Your task to perform on an android device: Search for "bose soundlink" on walmart, select the first entry, and add it to the cart. Image 0: 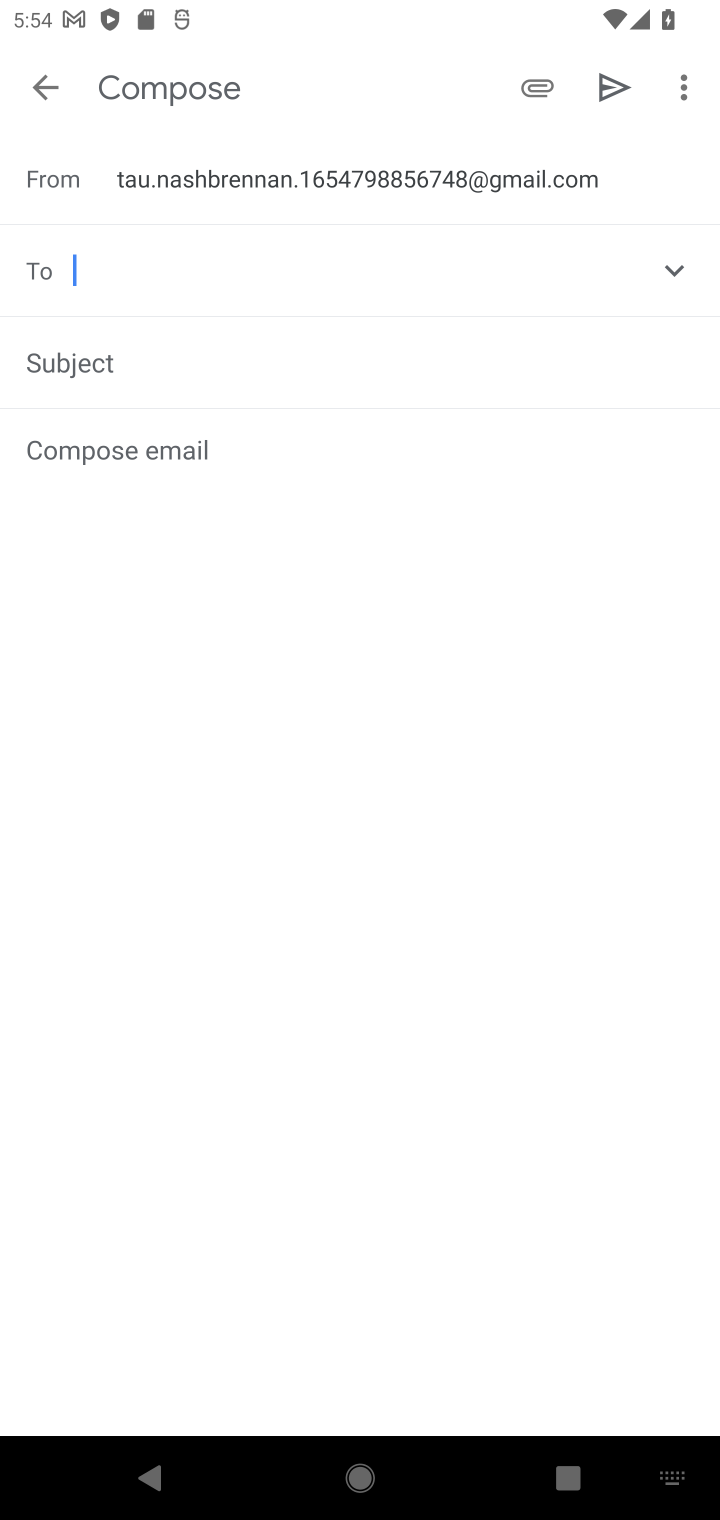
Step 0: press home button
Your task to perform on an android device: Search for "bose soundlink" on walmart, select the first entry, and add it to the cart. Image 1: 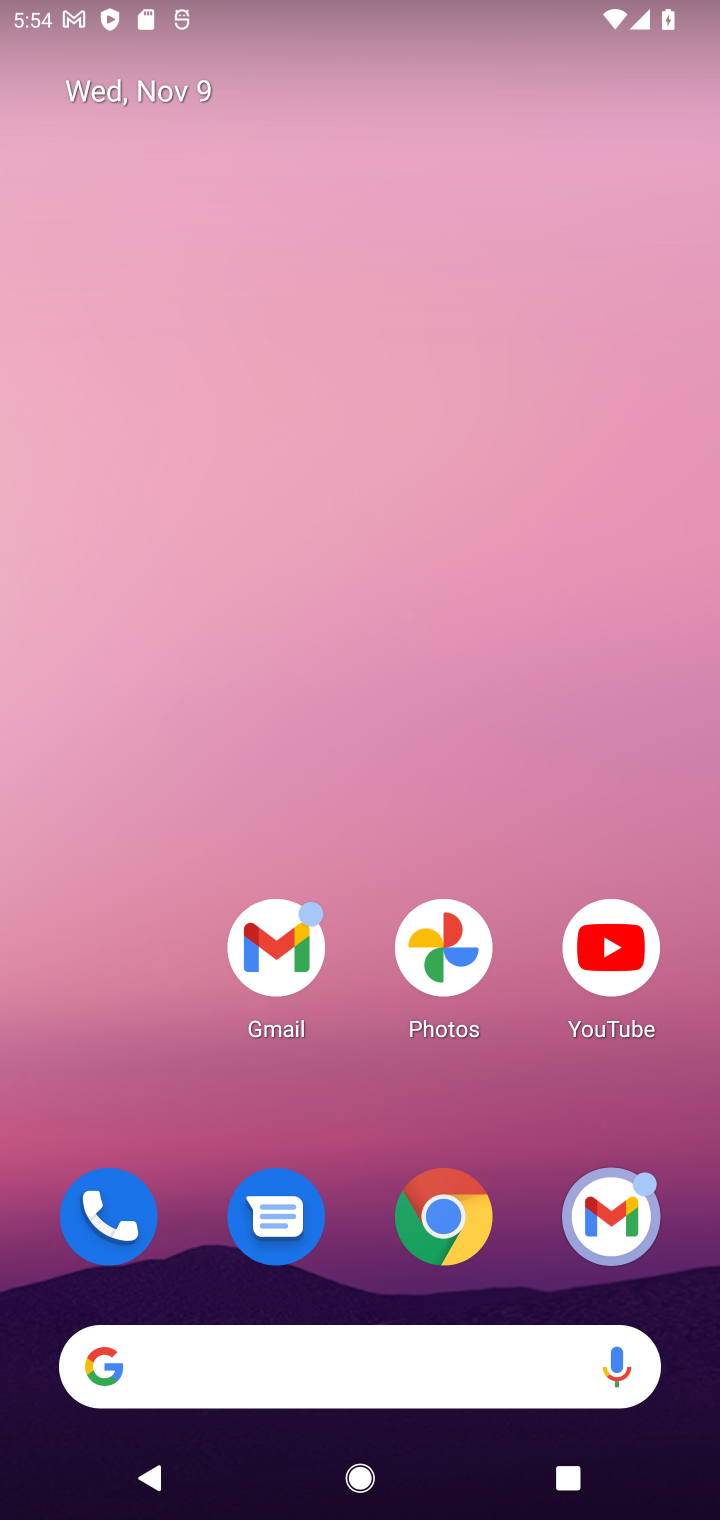
Step 1: drag from (358, 1273) to (285, 464)
Your task to perform on an android device: Search for "bose soundlink" on walmart, select the first entry, and add it to the cart. Image 2: 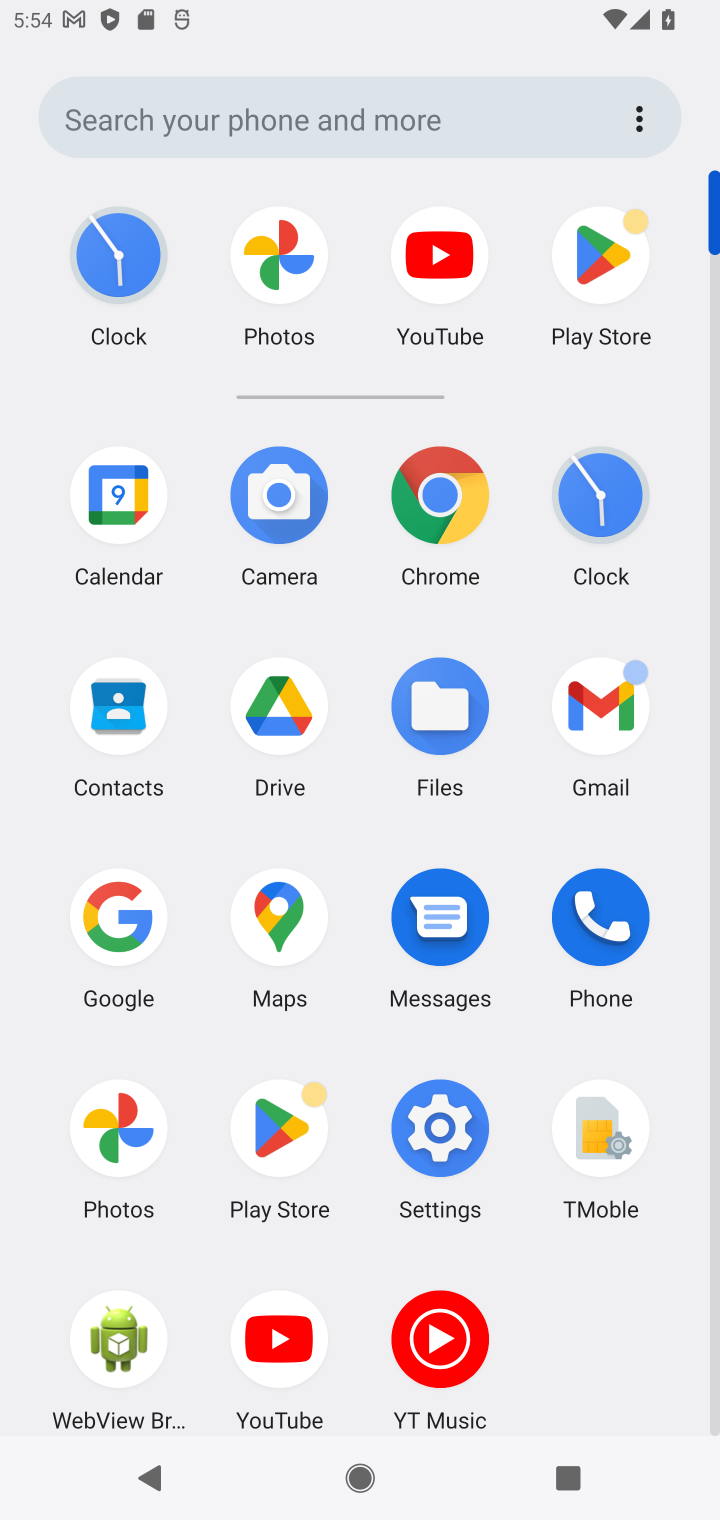
Step 2: click (442, 492)
Your task to perform on an android device: Search for "bose soundlink" on walmart, select the first entry, and add it to the cart. Image 3: 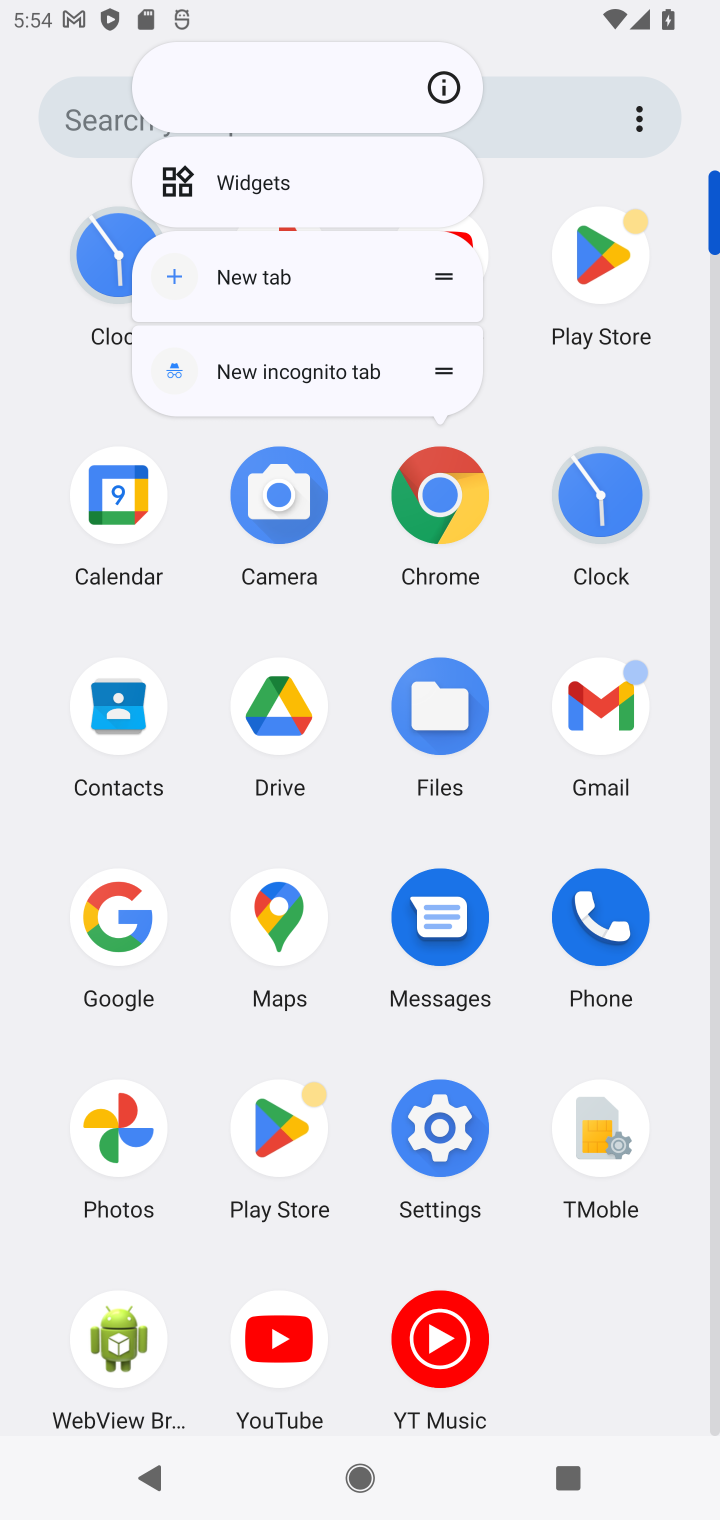
Step 3: click (442, 492)
Your task to perform on an android device: Search for "bose soundlink" on walmart, select the first entry, and add it to the cart. Image 4: 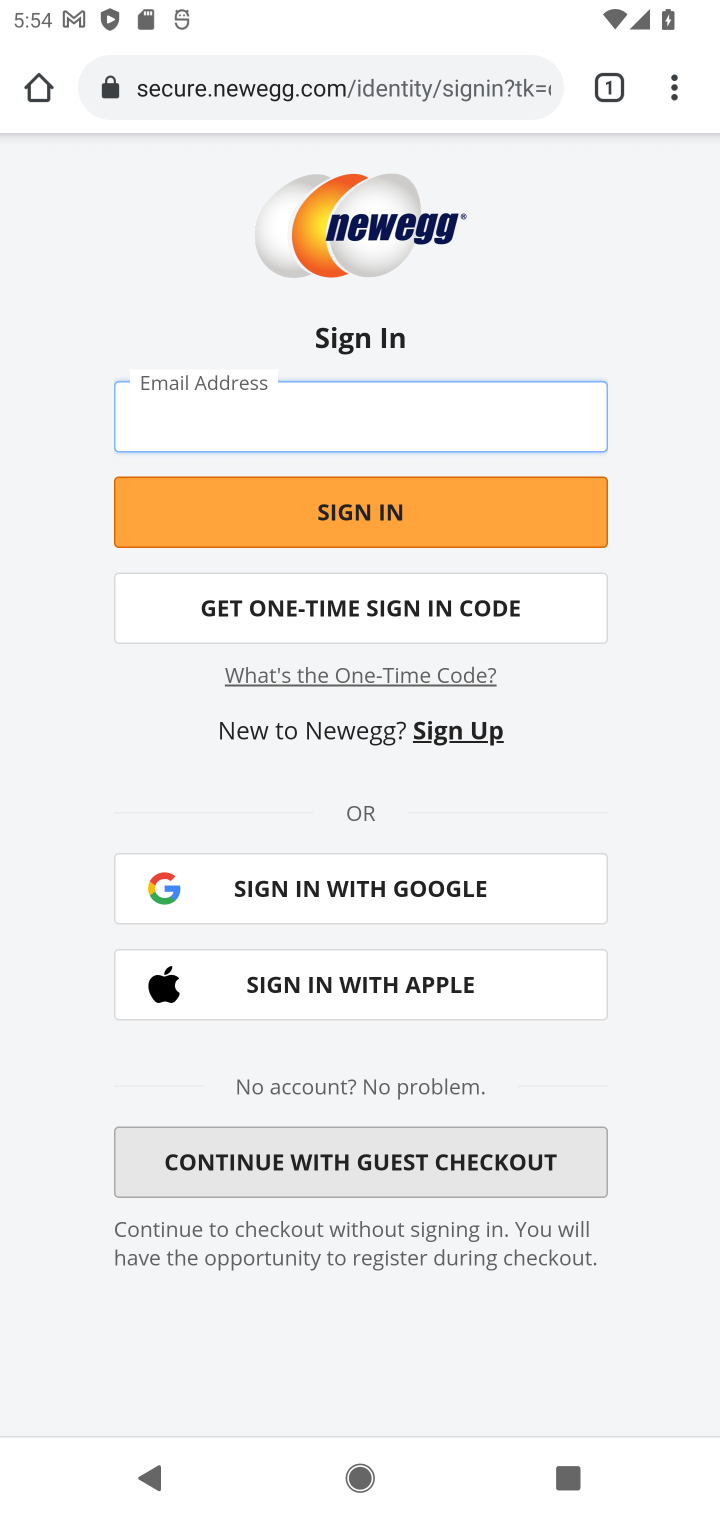
Step 4: click (374, 86)
Your task to perform on an android device: Search for "bose soundlink" on walmart, select the first entry, and add it to the cart. Image 5: 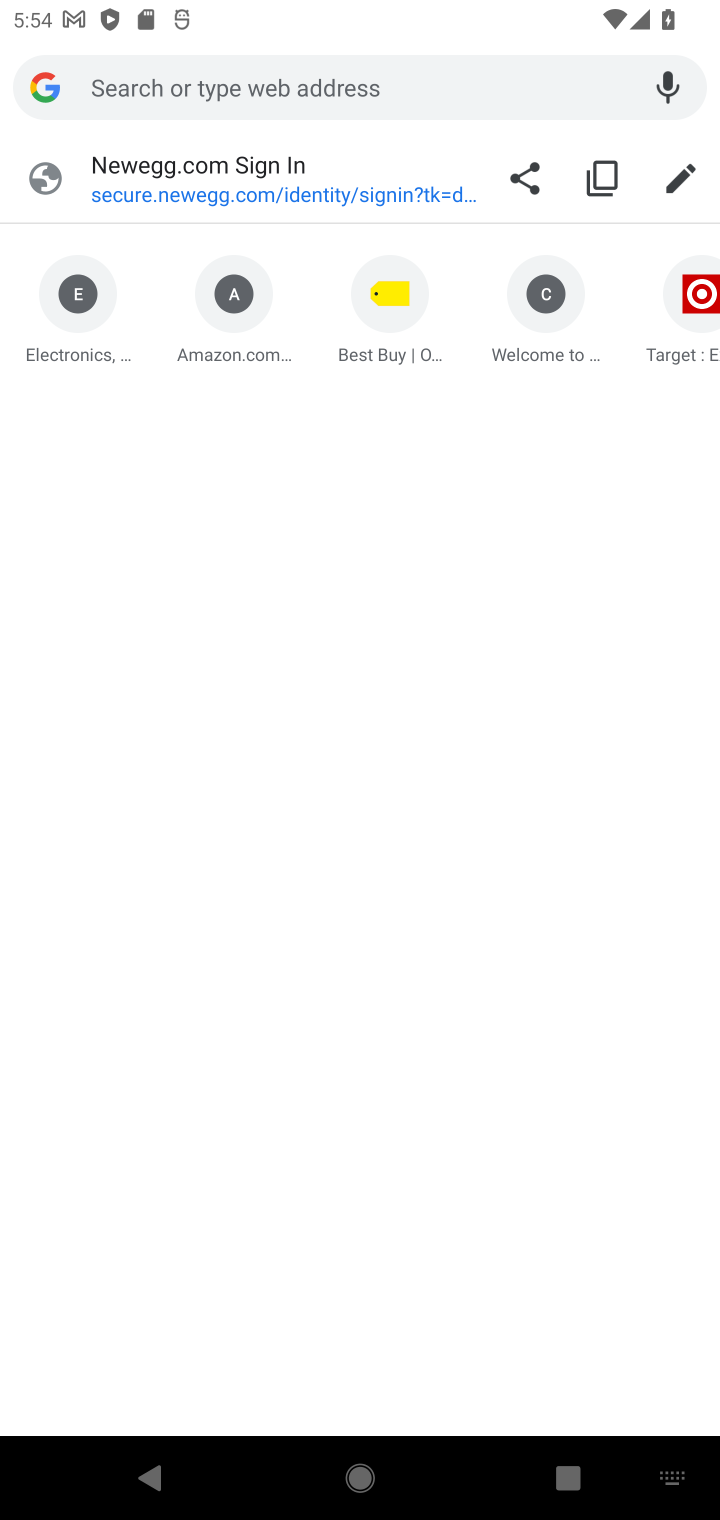
Step 5: type "walmart.com"
Your task to perform on an android device: Search for "bose soundlink" on walmart, select the first entry, and add it to the cart. Image 6: 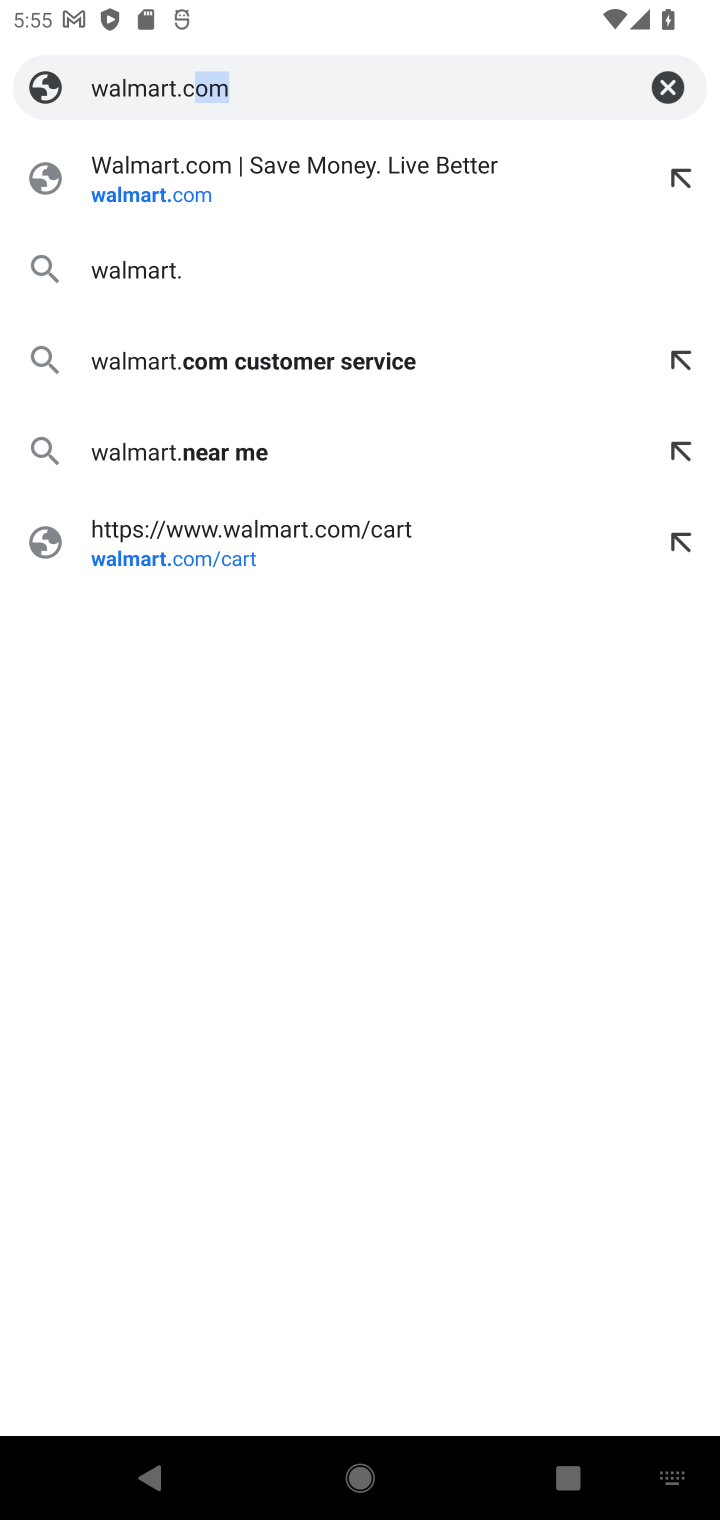
Step 6: press enter
Your task to perform on an android device: Search for "bose soundlink" on walmart, select the first entry, and add it to the cart. Image 7: 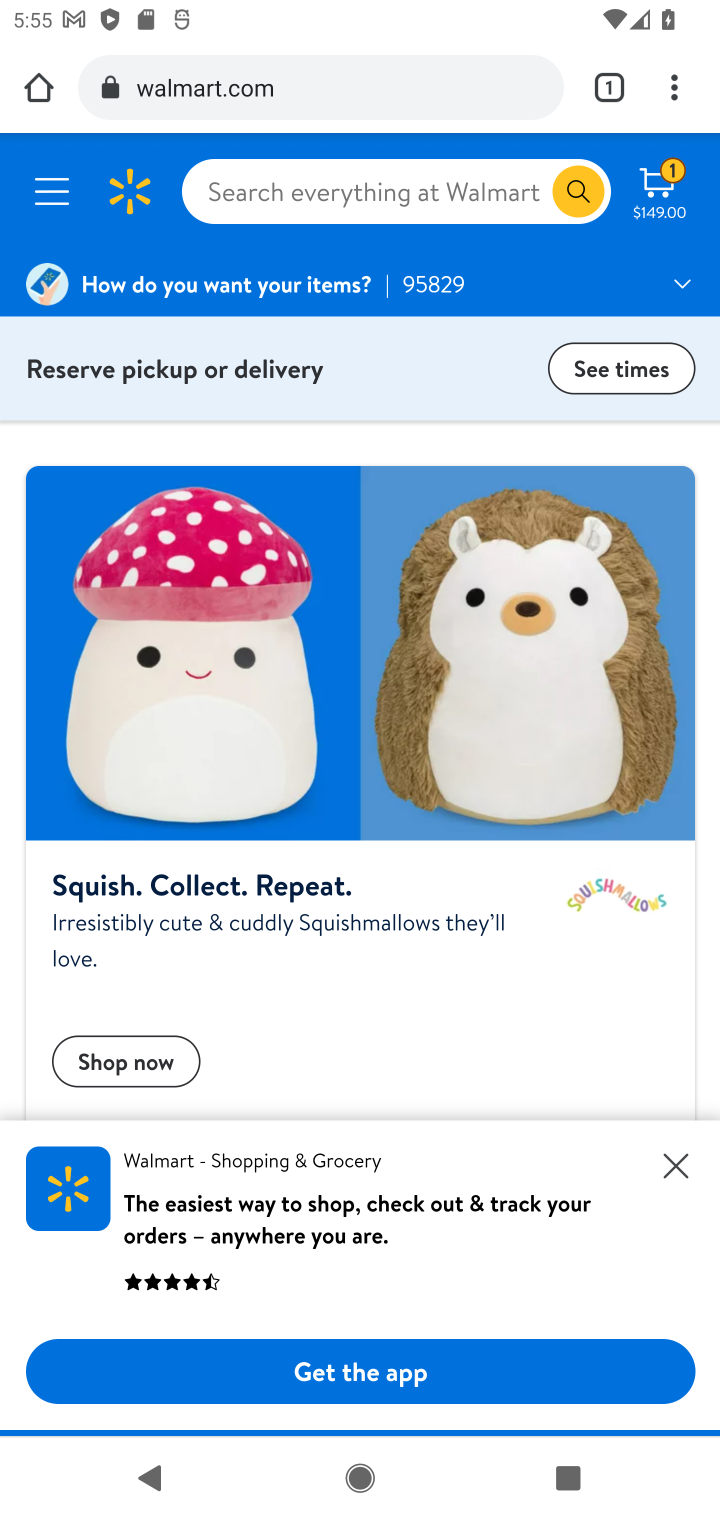
Step 7: click (455, 203)
Your task to perform on an android device: Search for "bose soundlink" on walmart, select the first entry, and add it to the cart. Image 8: 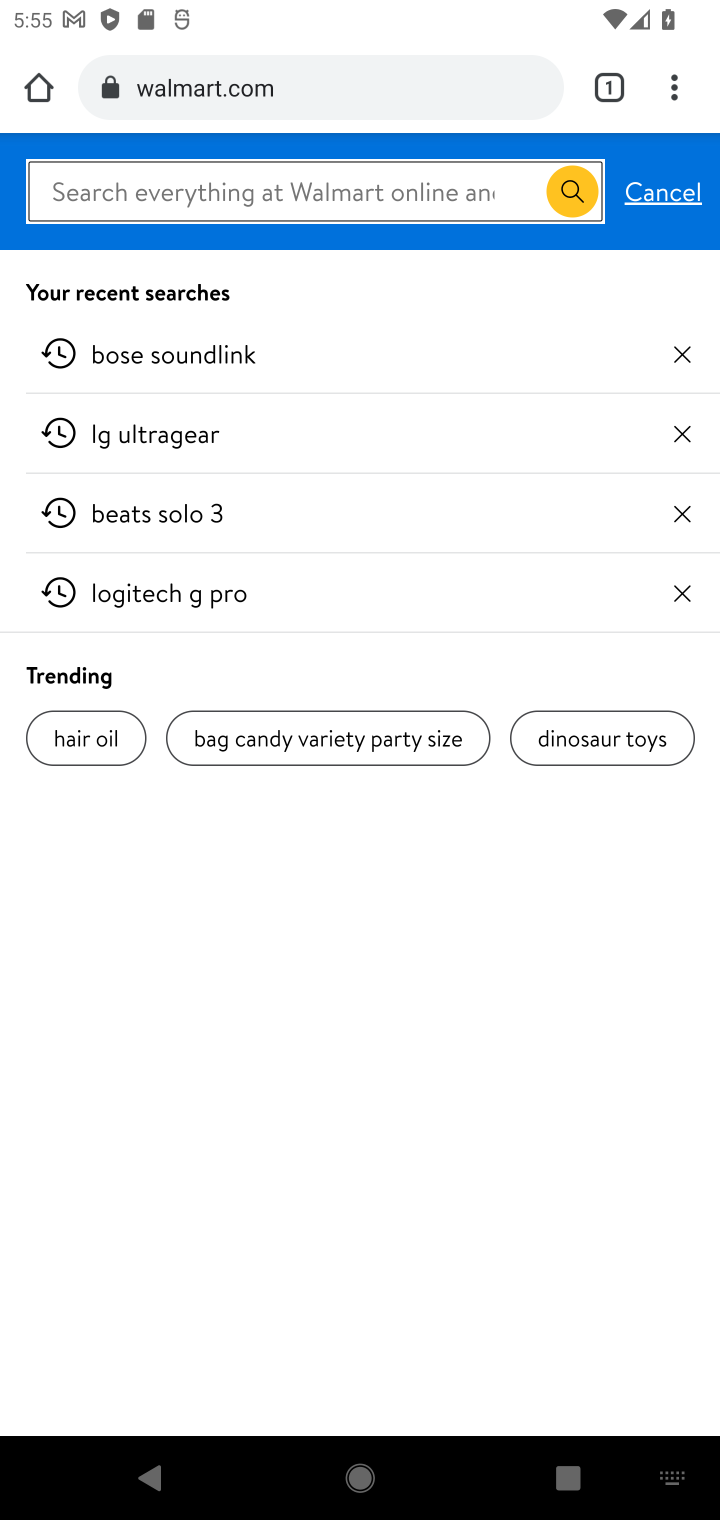
Step 8: type "bose soundlink"
Your task to perform on an android device: Search for "bose soundlink" on walmart, select the first entry, and add it to the cart. Image 9: 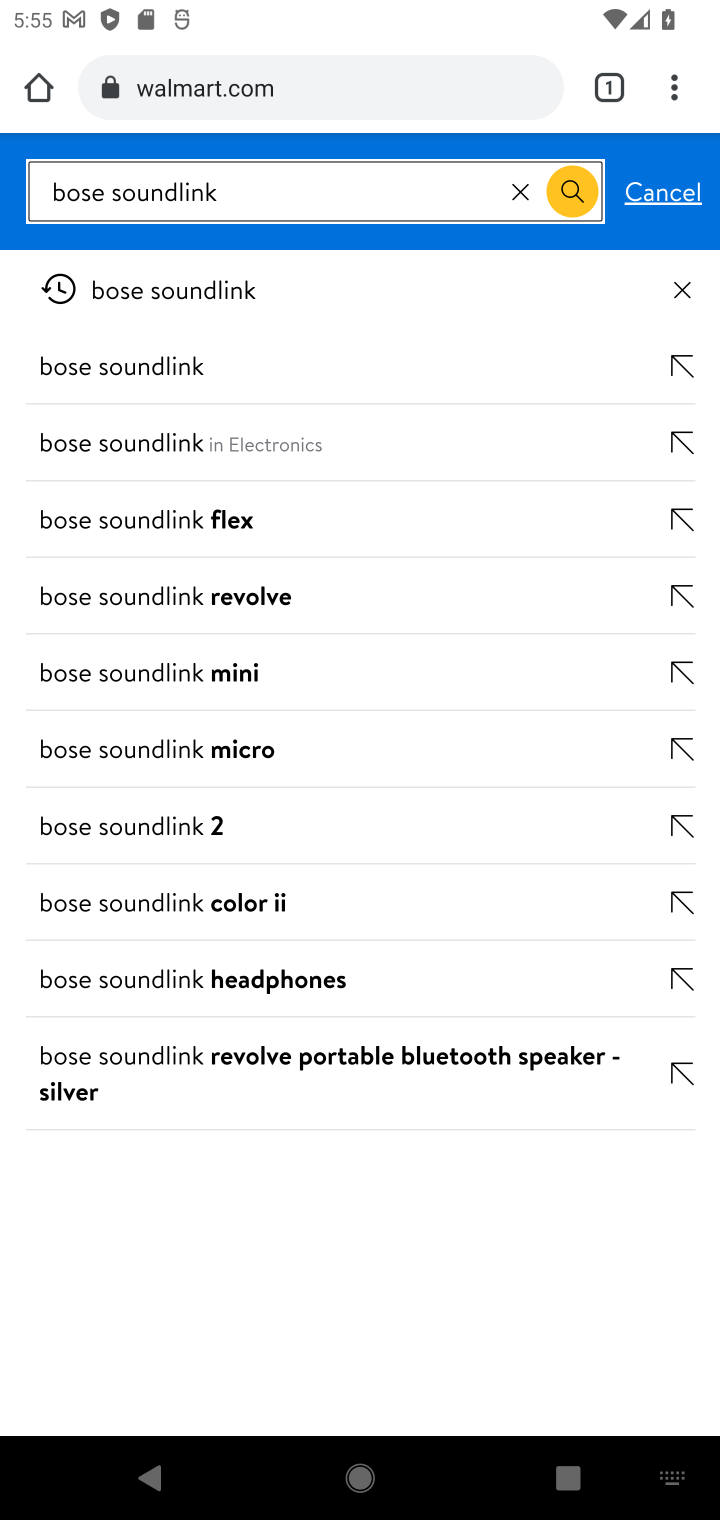
Step 9: press enter
Your task to perform on an android device: Search for "bose soundlink" on walmart, select the first entry, and add it to the cart. Image 10: 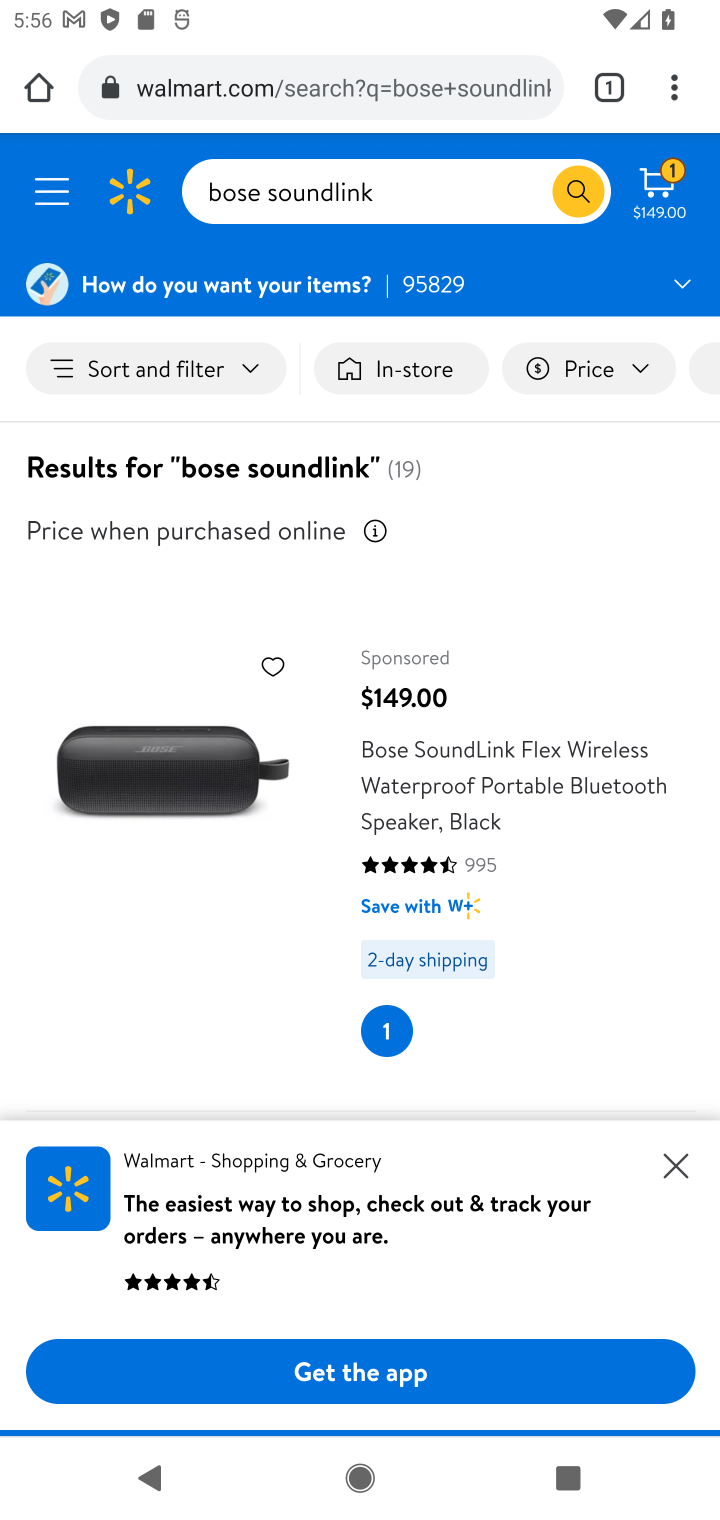
Step 10: drag from (458, 990) to (467, 309)
Your task to perform on an android device: Search for "bose soundlink" on walmart, select the first entry, and add it to the cart. Image 11: 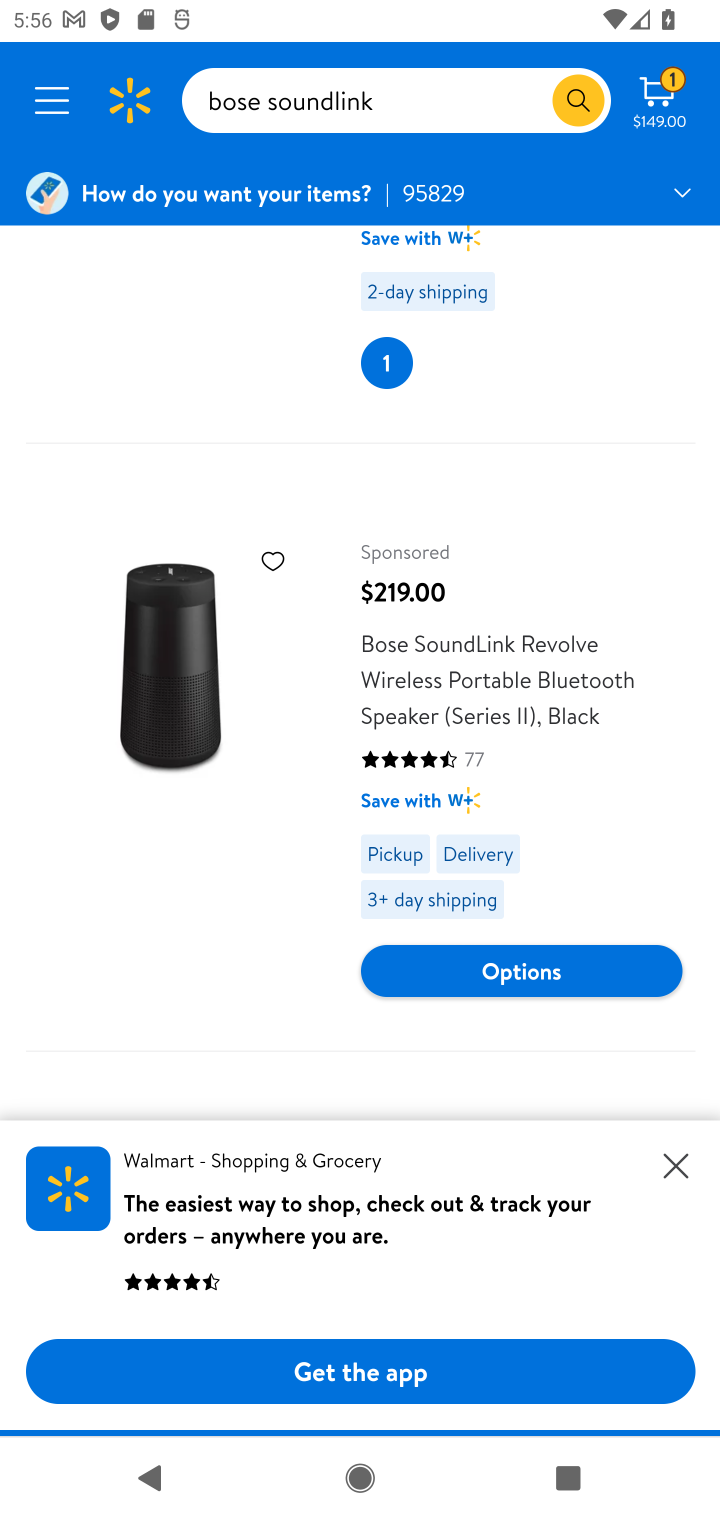
Step 11: drag from (525, 816) to (546, 143)
Your task to perform on an android device: Search for "bose soundlink" on walmart, select the first entry, and add it to the cart. Image 12: 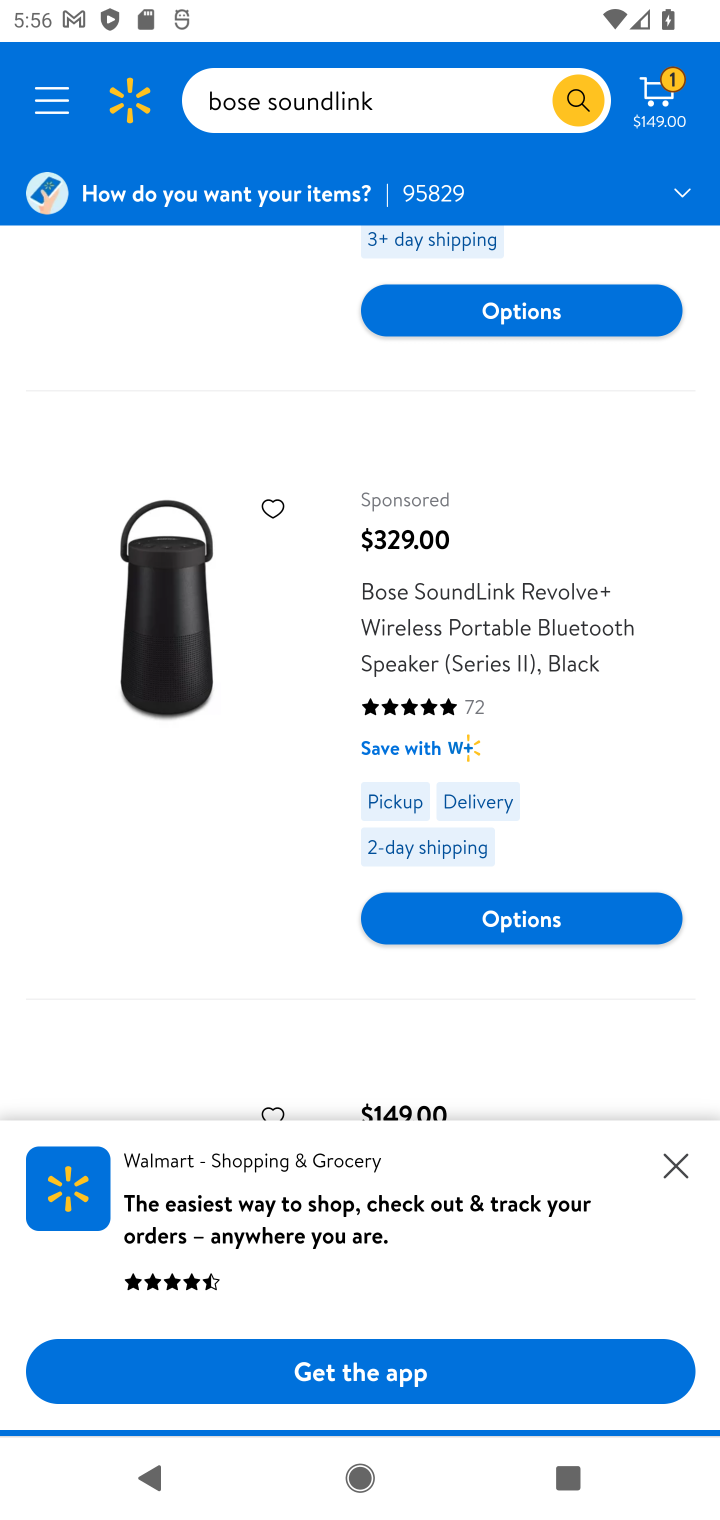
Step 12: drag from (374, 990) to (455, 364)
Your task to perform on an android device: Search for "bose soundlink" on walmart, select the first entry, and add it to the cart. Image 13: 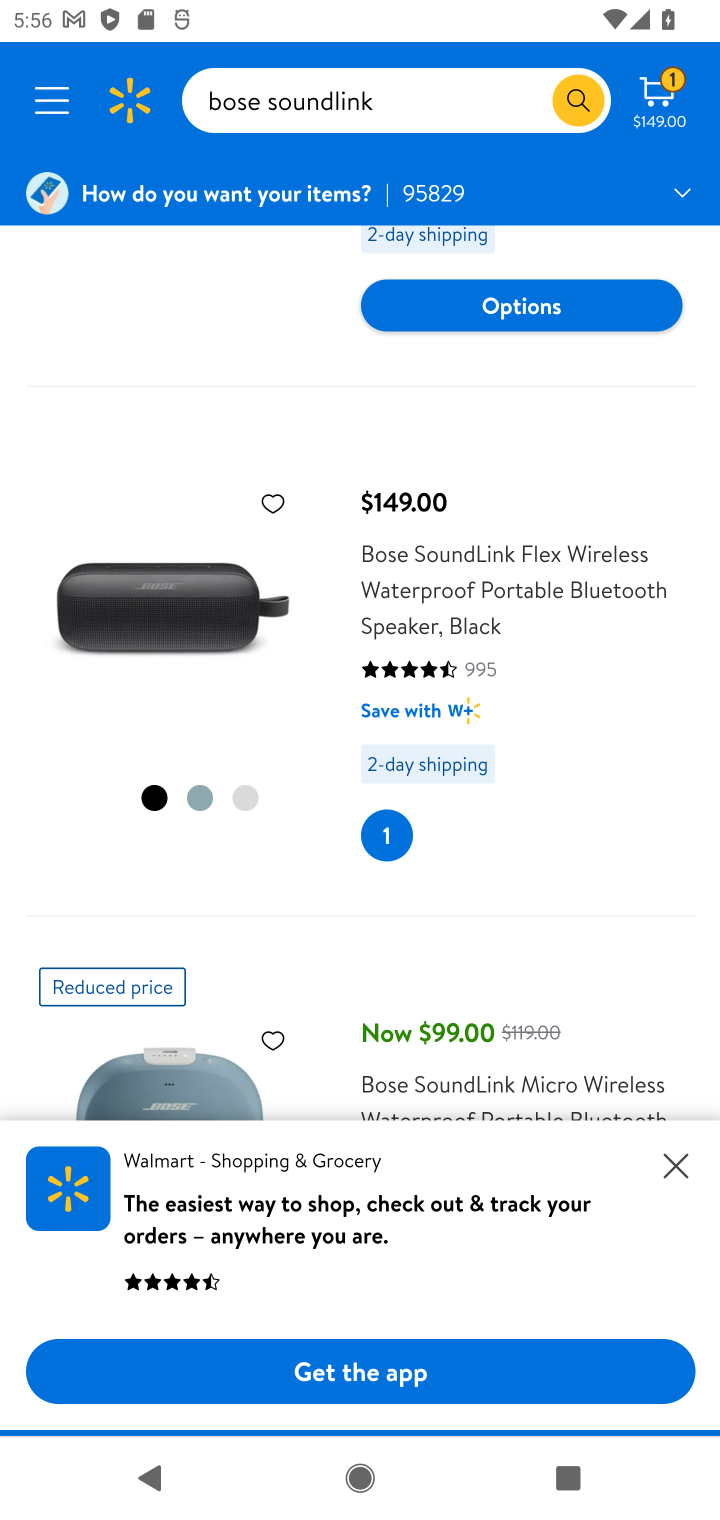
Step 13: click (676, 98)
Your task to perform on an android device: Search for "bose soundlink" on walmart, select the first entry, and add it to the cart. Image 14: 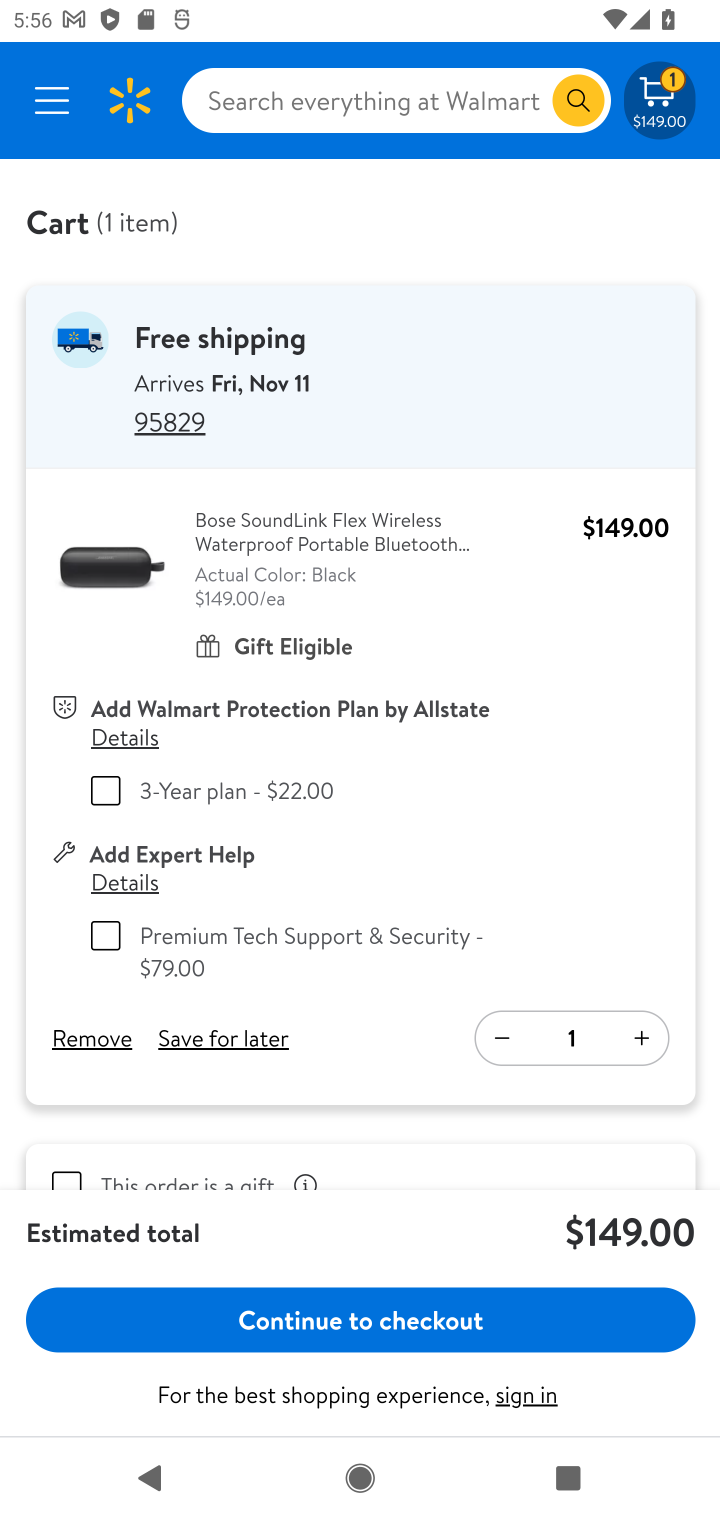
Step 14: task complete